Your task to perform on an android device: Go to network settings Image 0: 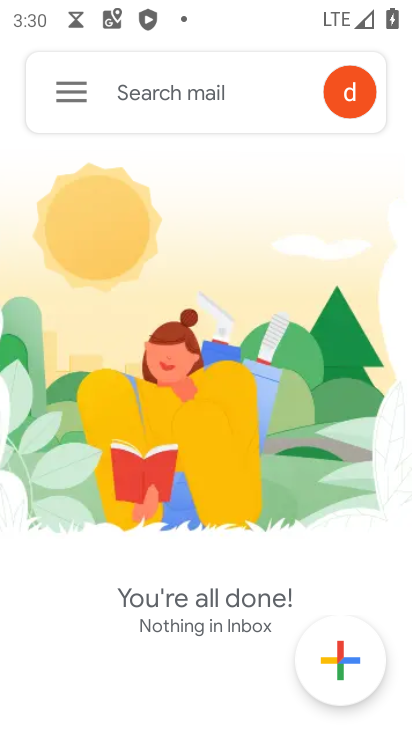
Step 0: press home button
Your task to perform on an android device: Go to network settings Image 1: 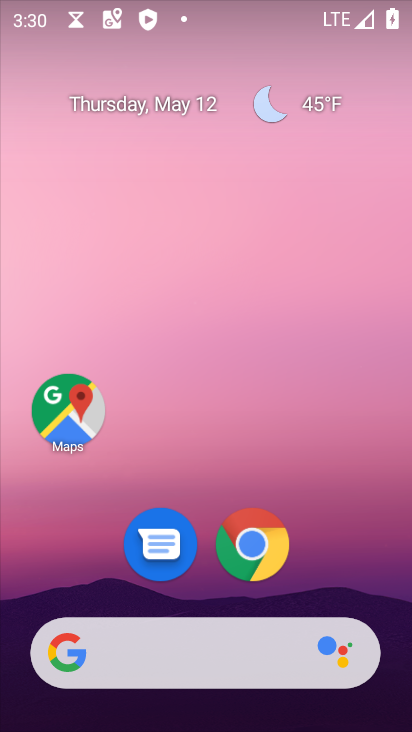
Step 1: drag from (319, 590) to (299, 20)
Your task to perform on an android device: Go to network settings Image 2: 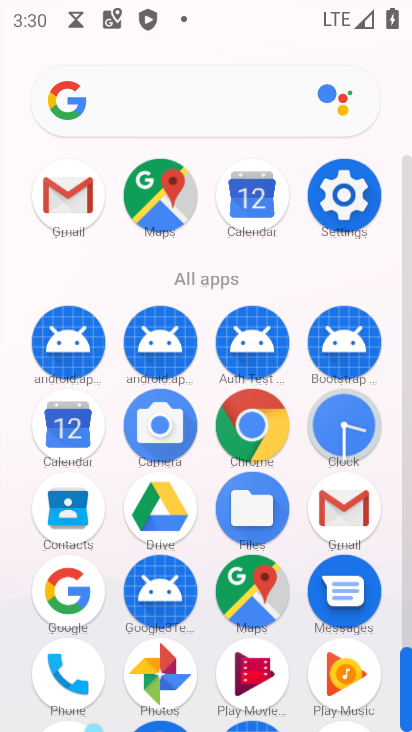
Step 2: click (346, 190)
Your task to perform on an android device: Go to network settings Image 3: 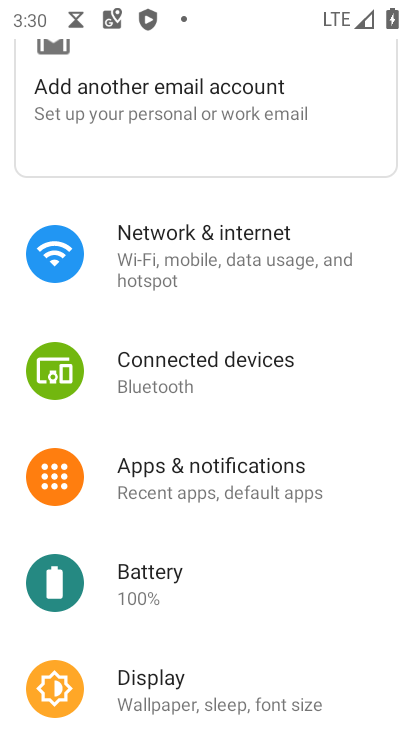
Step 3: click (174, 225)
Your task to perform on an android device: Go to network settings Image 4: 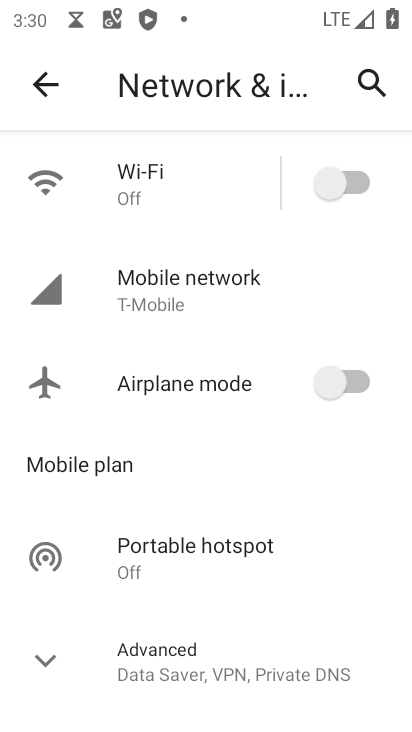
Step 4: click (230, 279)
Your task to perform on an android device: Go to network settings Image 5: 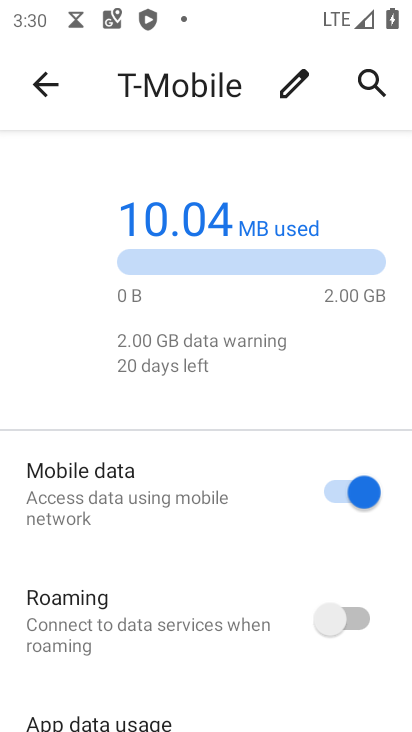
Step 5: task complete